Your task to perform on an android device: snooze an email in the gmail app Image 0: 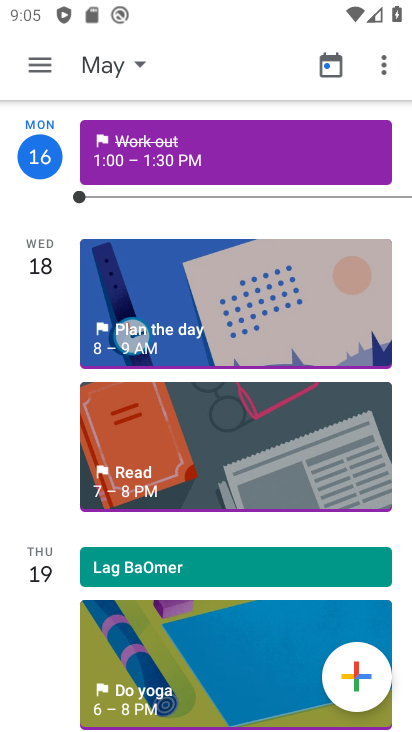
Step 0: drag from (81, 630) to (13, 461)
Your task to perform on an android device: snooze an email in the gmail app Image 1: 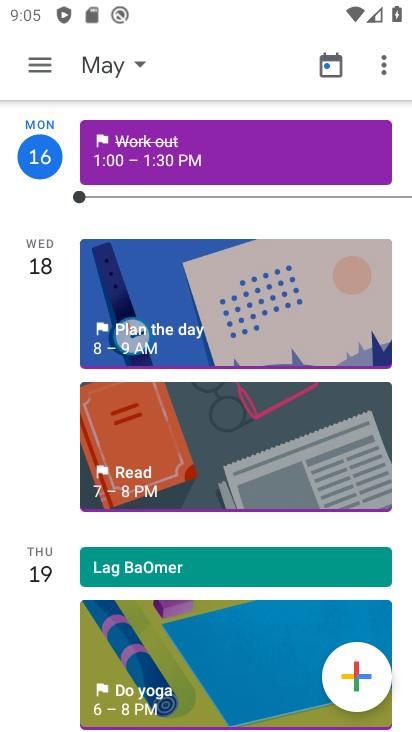
Step 1: press home button
Your task to perform on an android device: snooze an email in the gmail app Image 2: 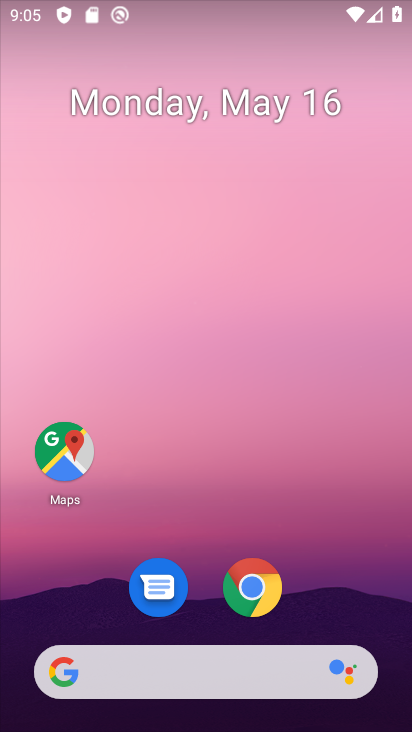
Step 2: drag from (74, 620) to (180, 72)
Your task to perform on an android device: snooze an email in the gmail app Image 3: 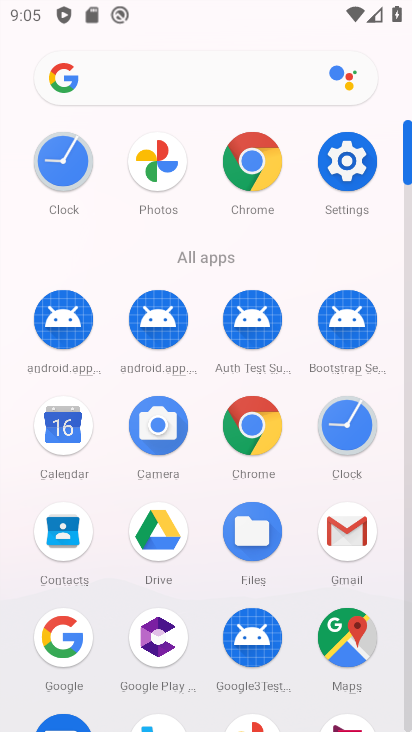
Step 3: click (350, 534)
Your task to perform on an android device: snooze an email in the gmail app Image 4: 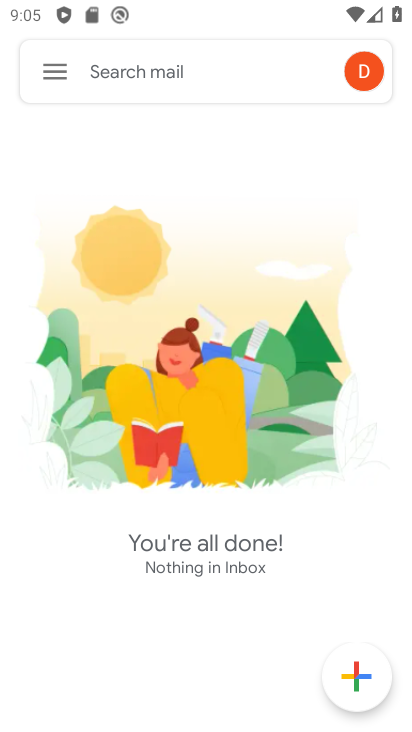
Step 4: click (62, 82)
Your task to perform on an android device: snooze an email in the gmail app Image 5: 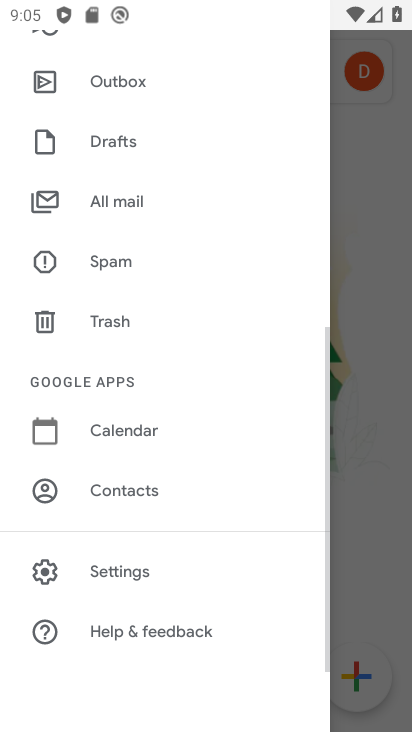
Step 5: click (165, 210)
Your task to perform on an android device: snooze an email in the gmail app Image 6: 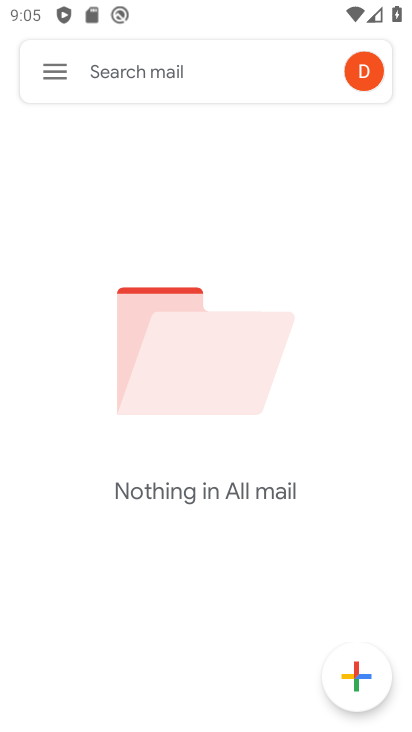
Step 6: task complete